Your task to perform on an android device: Go to Reddit.com Image 0: 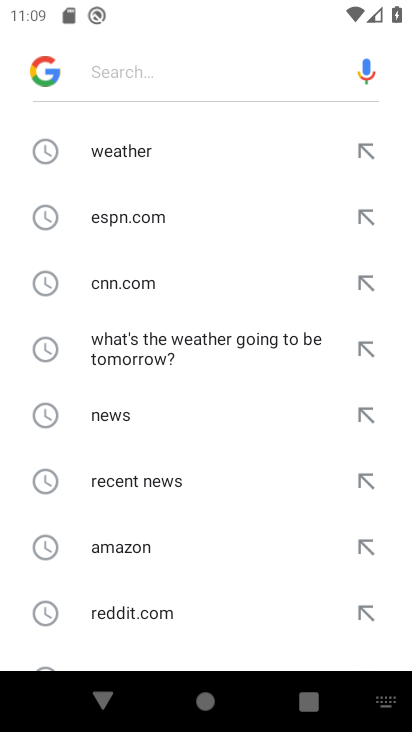
Step 0: press home button
Your task to perform on an android device: Go to Reddit.com Image 1: 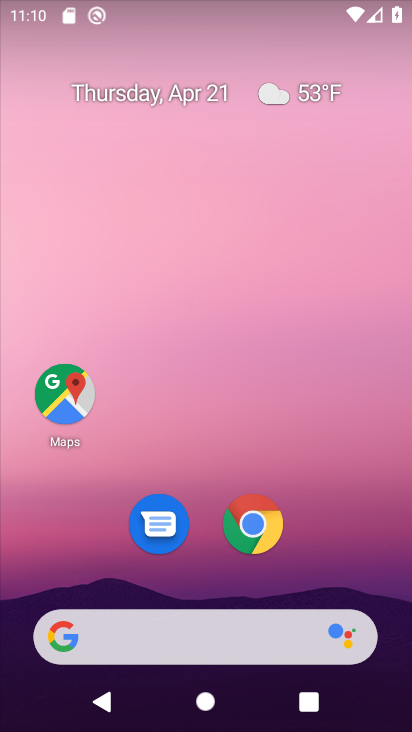
Step 1: click (207, 640)
Your task to perform on an android device: Go to Reddit.com Image 2: 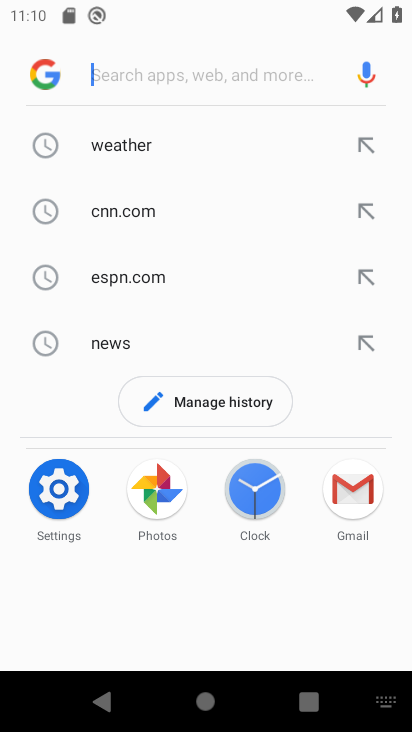
Step 2: type "reddit.com"
Your task to perform on an android device: Go to Reddit.com Image 3: 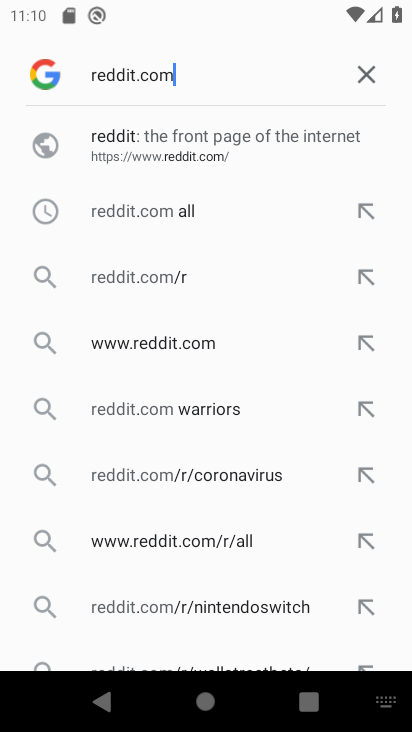
Step 3: click (277, 143)
Your task to perform on an android device: Go to Reddit.com Image 4: 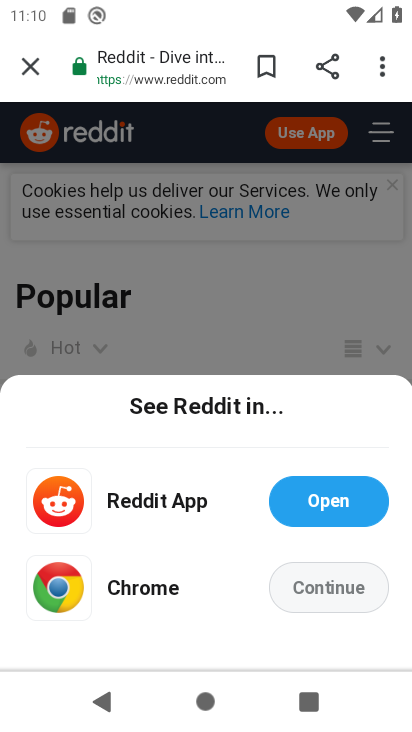
Step 4: task complete